Your task to perform on an android device: change the clock display to digital Image 0: 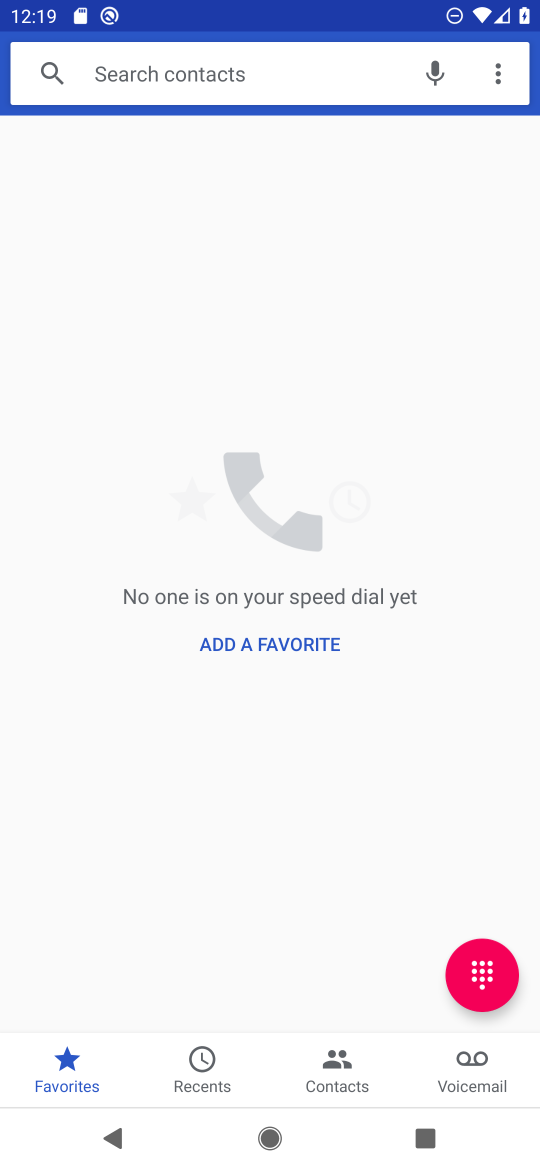
Step 0: press home button
Your task to perform on an android device: change the clock display to digital Image 1: 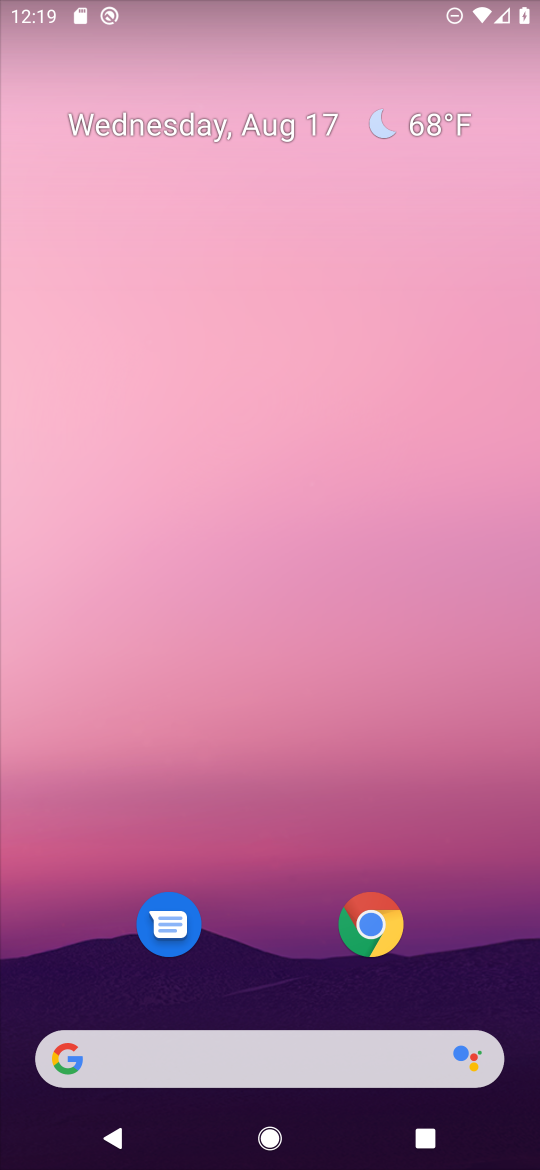
Step 1: drag from (502, 956) to (460, 309)
Your task to perform on an android device: change the clock display to digital Image 2: 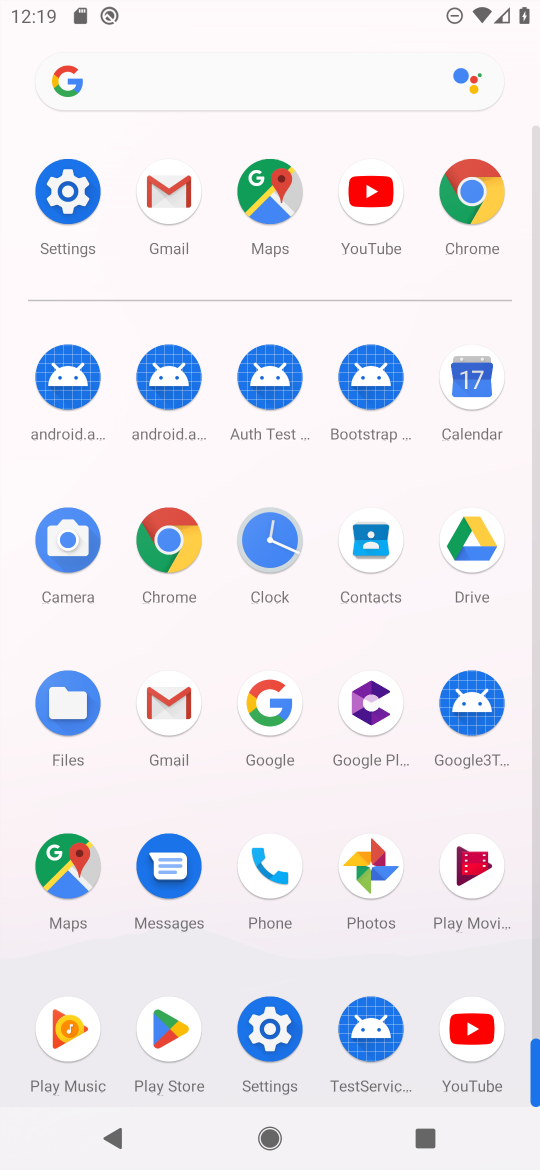
Step 2: click (276, 550)
Your task to perform on an android device: change the clock display to digital Image 3: 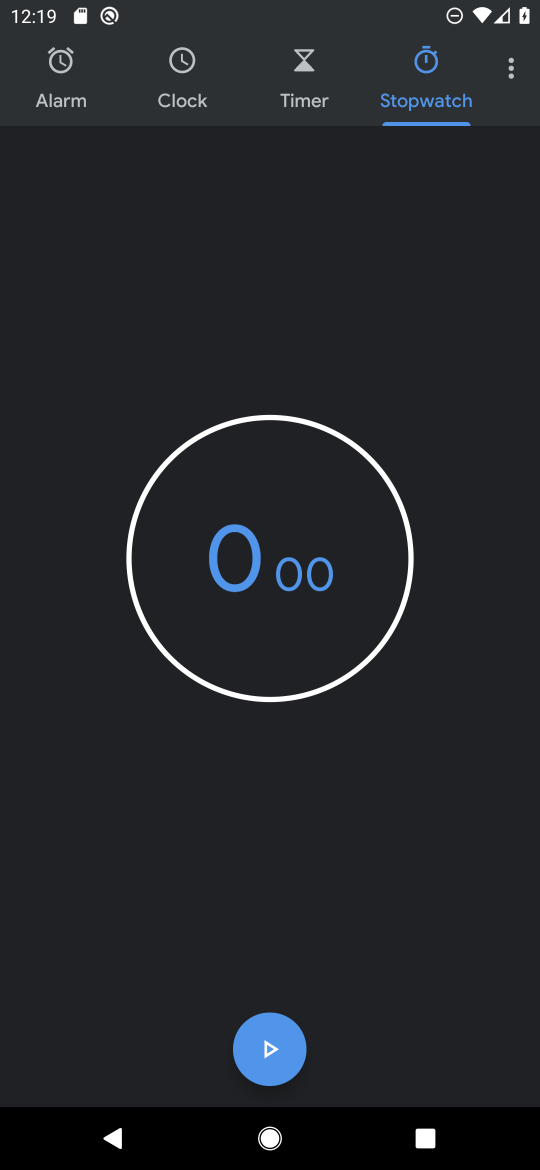
Step 3: click (525, 55)
Your task to perform on an android device: change the clock display to digital Image 4: 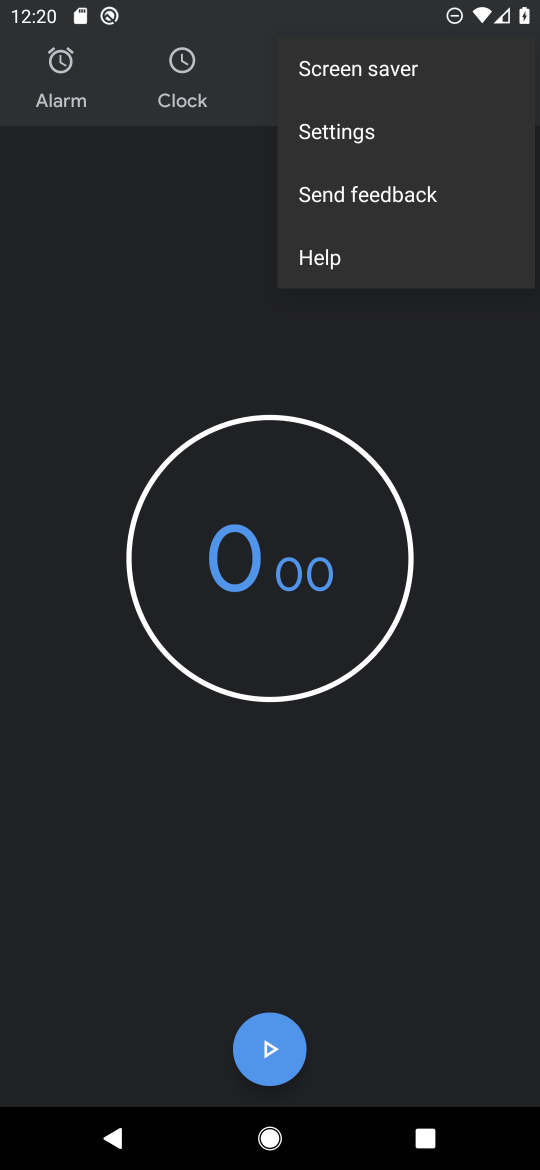
Step 4: click (349, 138)
Your task to perform on an android device: change the clock display to digital Image 5: 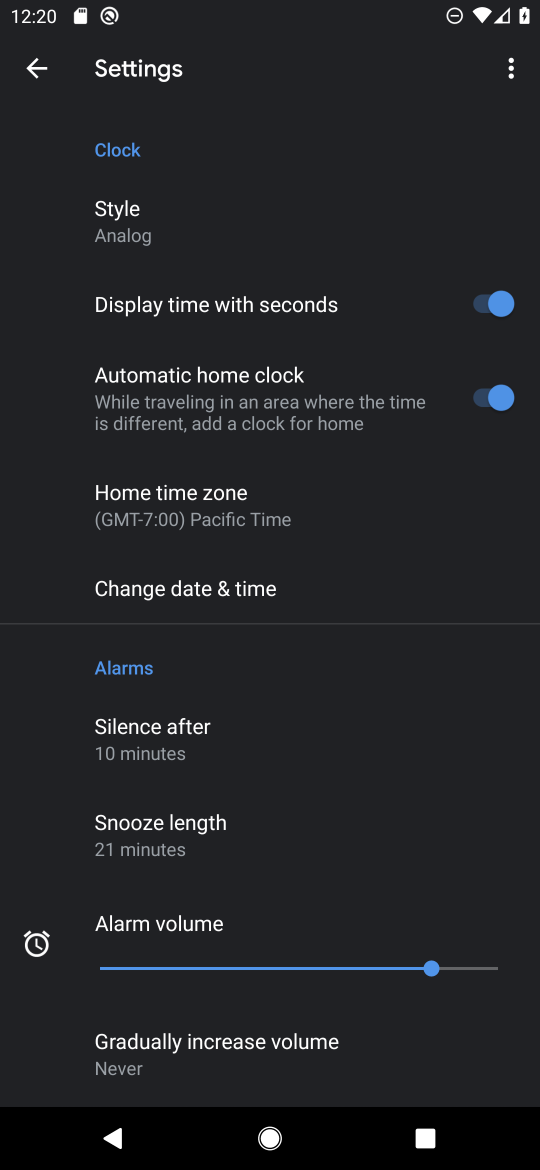
Step 5: click (227, 216)
Your task to perform on an android device: change the clock display to digital Image 6: 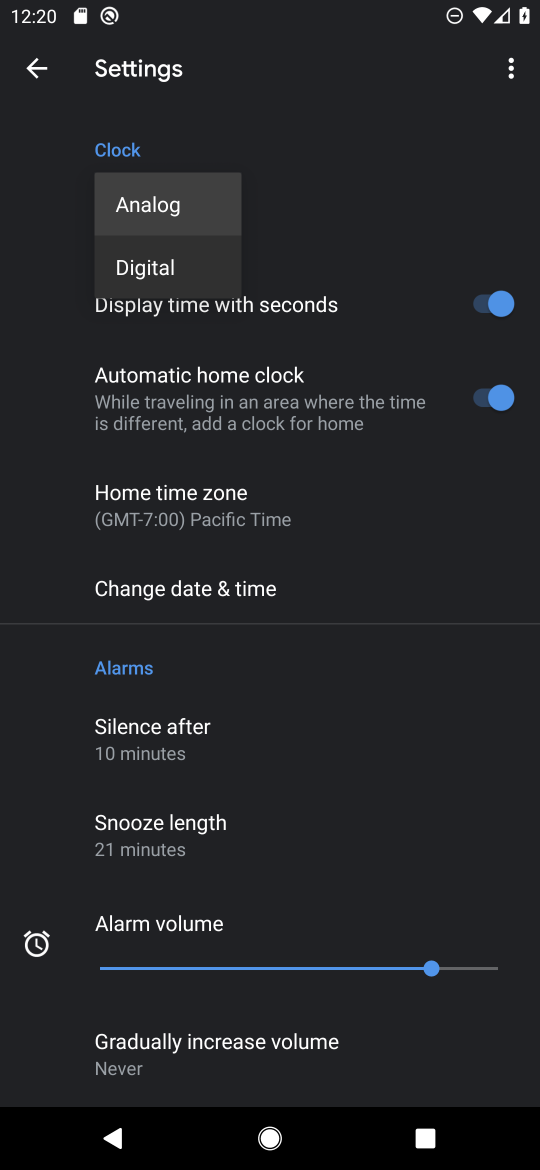
Step 6: click (190, 270)
Your task to perform on an android device: change the clock display to digital Image 7: 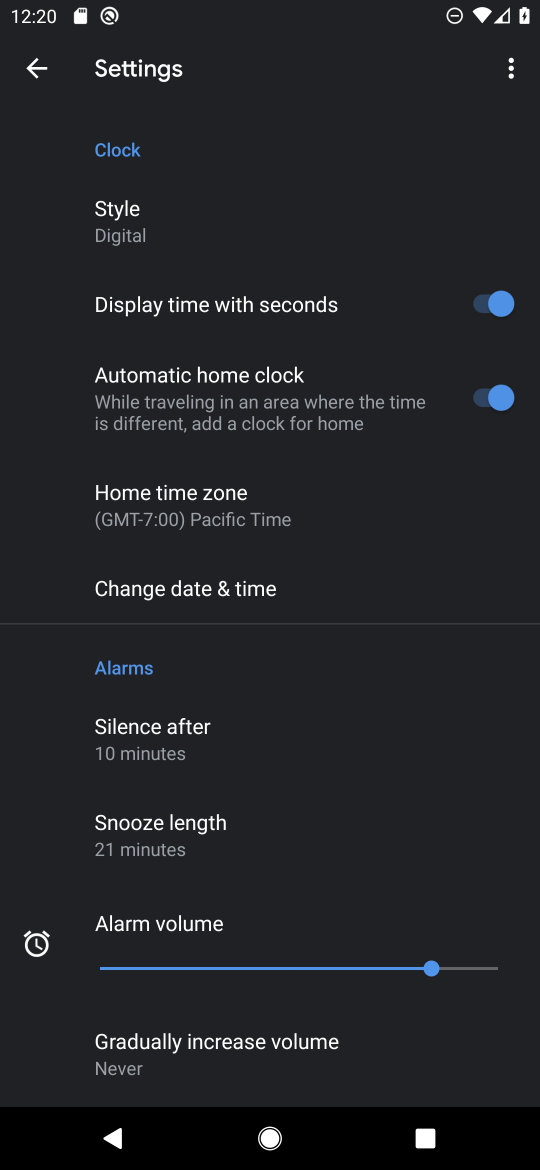
Step 7: task complete